Your task to perform on an android device: Open sound settings Image 0: 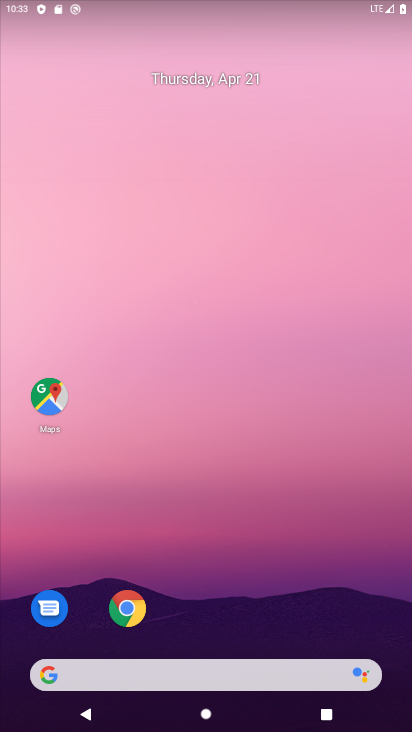
Step 0: drag from (211, 537) to (191, 156)
Your task to perform on an android device: Open sound settings Image 1: 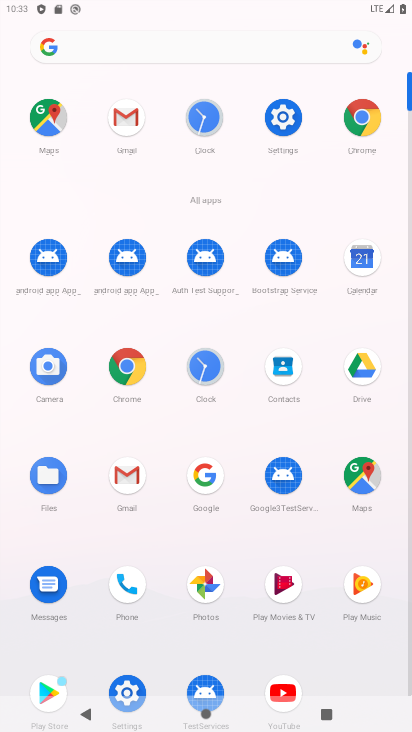
Step 1: click (289, 118)
Your task to perform on an android device: Open sound settings Image 2: 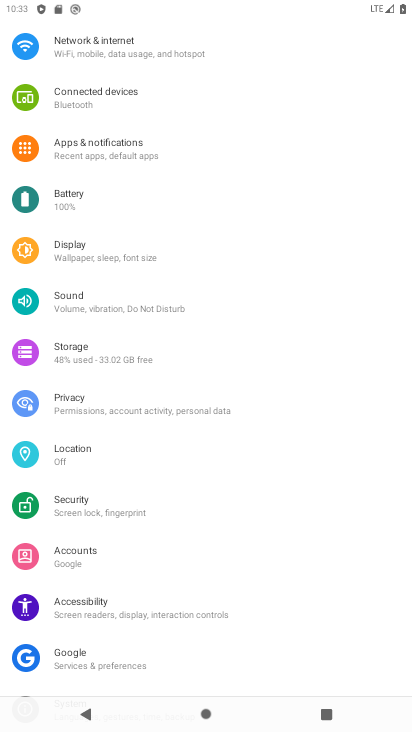
Step 2: click (66, 306)
Your task to perform on an android device: Open sound settings Image 3: 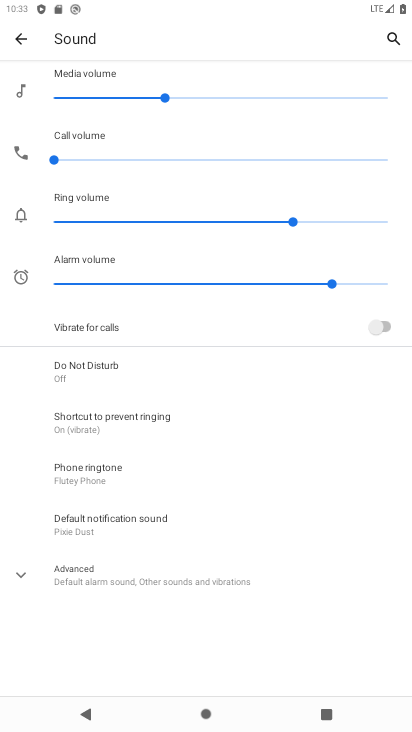
Step 3: task complete